Your task to perform on an android device: Search for "usb-a to usb-b" on target.com, select the first entry, add it to the cart, then select checkout. Image 0: 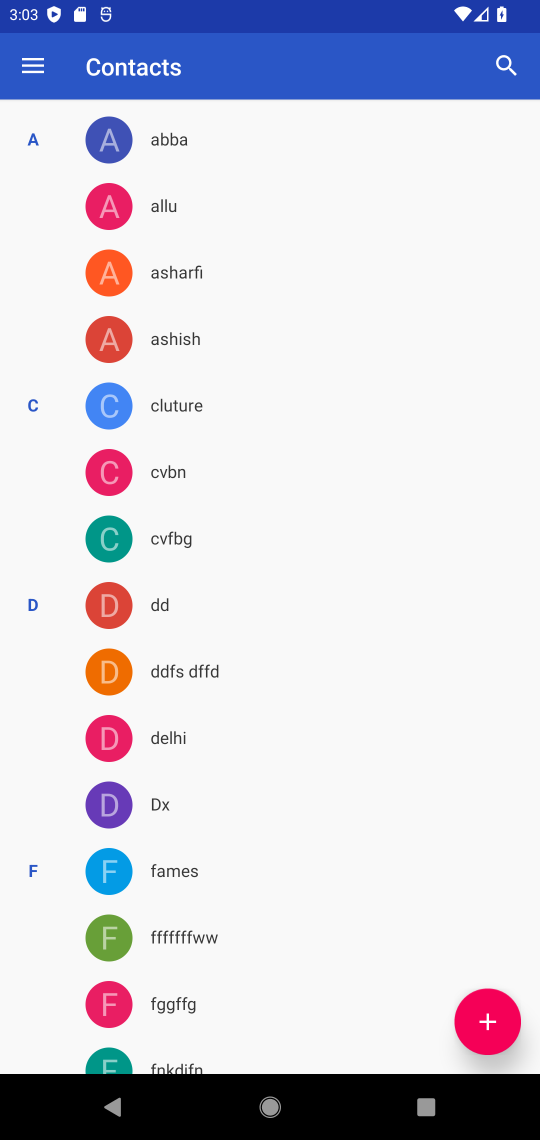
Step 0: press home button
Your task to perform on an android device: Search for "usb-a to usb-b" on target.com, select the first entry, add it to the cart, then select checkout. Image 1: 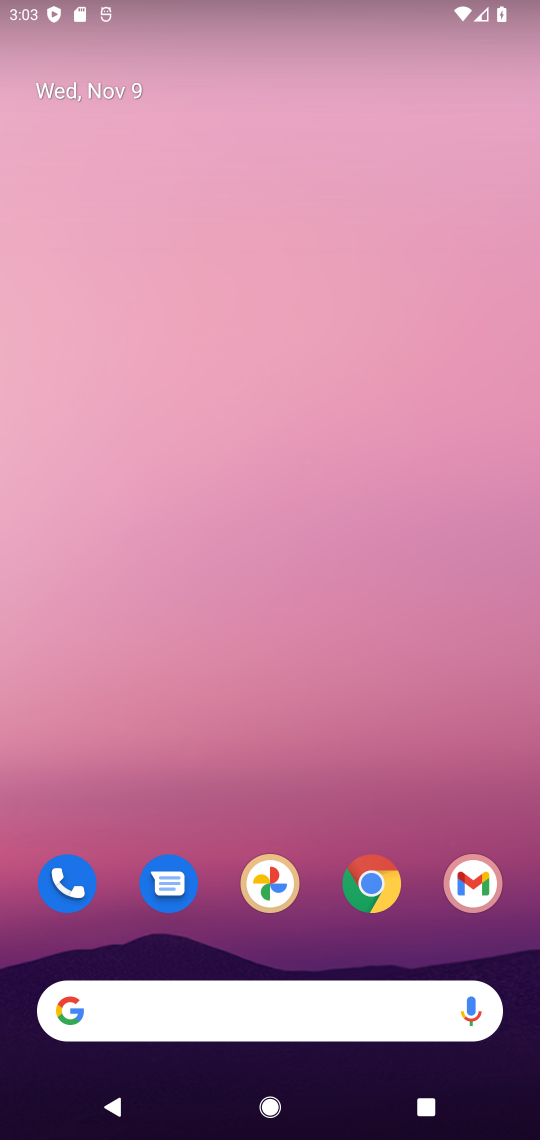
Step 1: click (366, 890)
Your task to perform on an android device: Search for "usb-a to usb-b" on target.com, select the first entry, add it to the cart, then select checkout. Image 2: 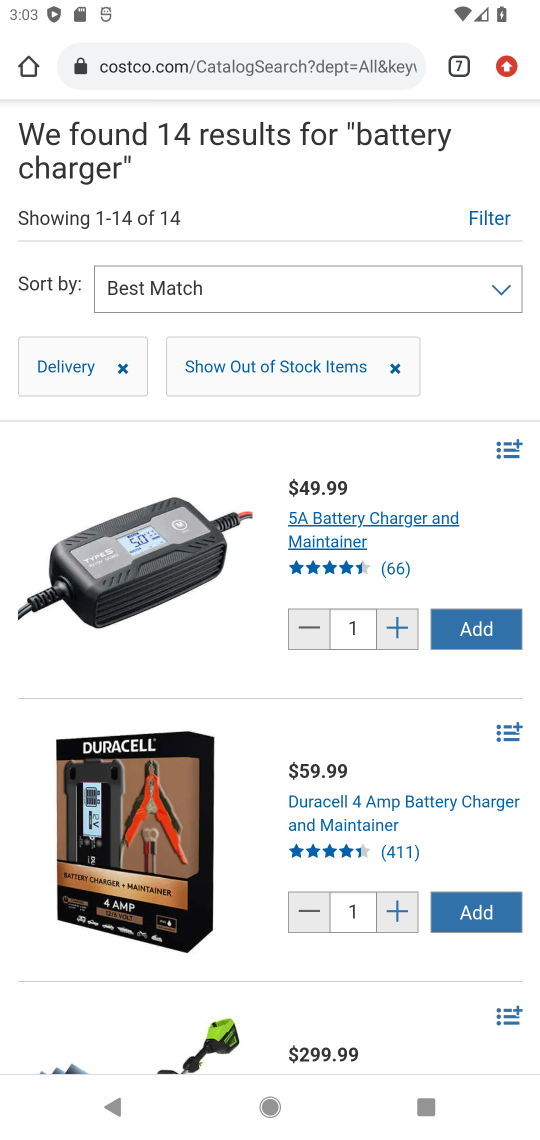
Step 2: click (456, 74)
Your task to perform on an android device: Search for "usb-a to usb-b" on target.com, select the first entry, add it to the cart, then select checkout. Image 3: 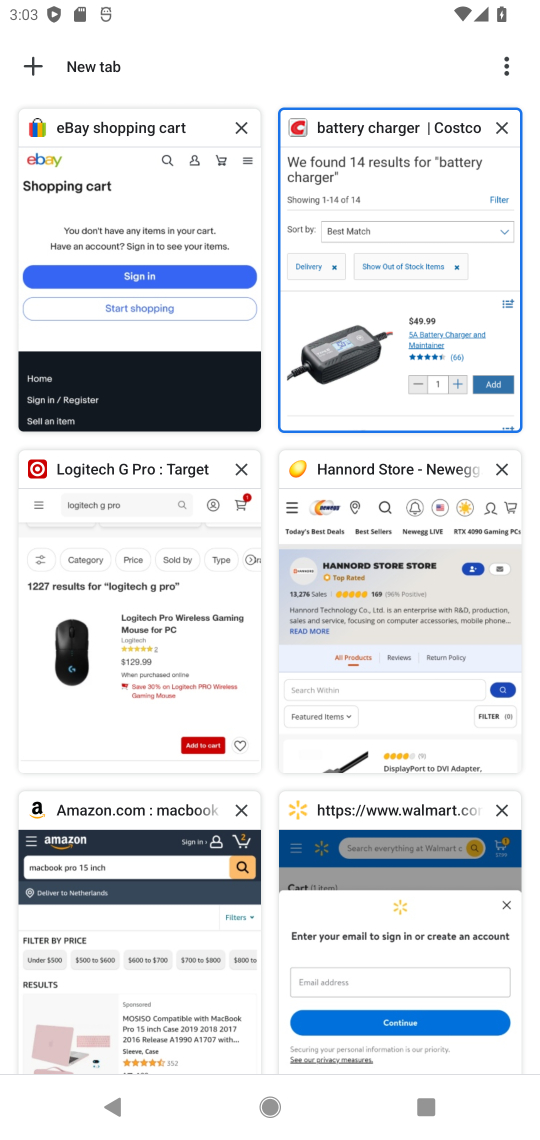
Step 3: click (107, 572)
Your task to perform on an android device: Search for "usb-a to usb-b" on target.com, select the first entry, add it to the cart, then select checkout. Image 4: 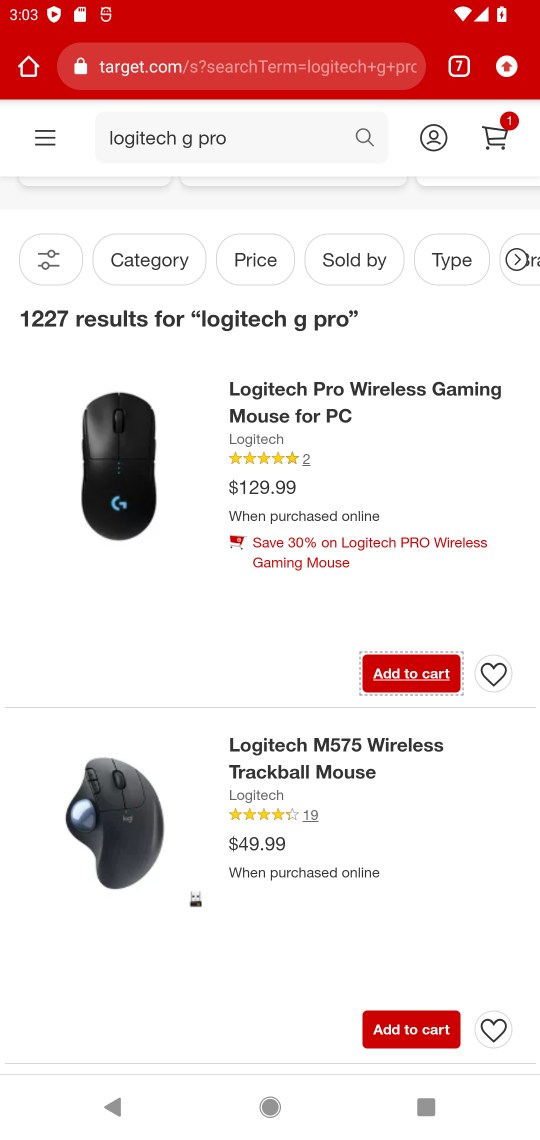
Step 4: click (298, 138)
Your task to perform on an android device: Search for "usb-a to usb-b" on target.com, select the first entry, add it to the cart, then select checkout. Image 5: 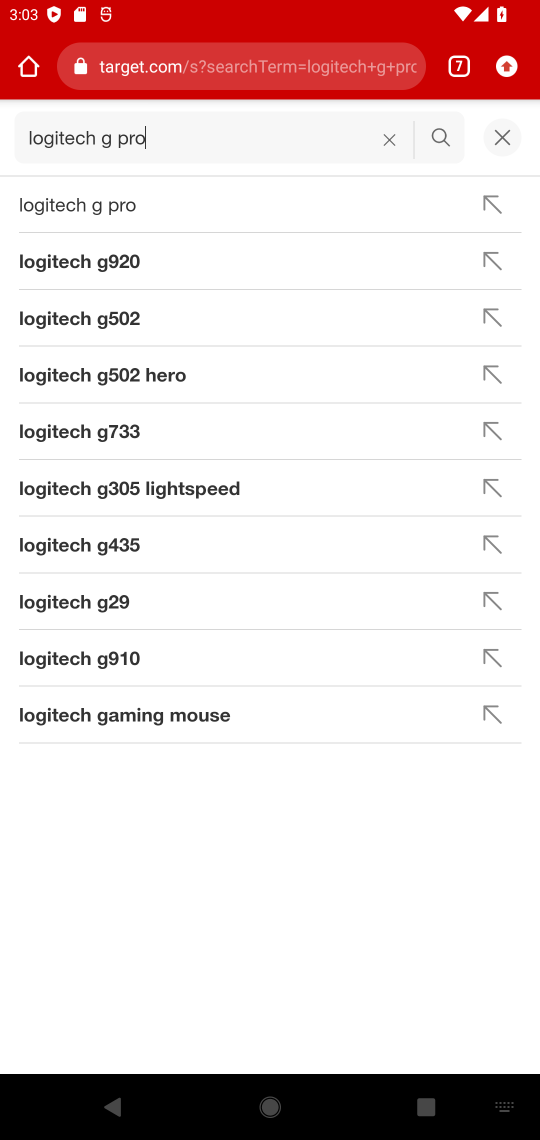
Step 5: click (388, 137)
Your task to perform on an android device: Search for "usb-a to usb-b" on target.com, select the first entry, add it to the cart, then select checkout. Image 6: 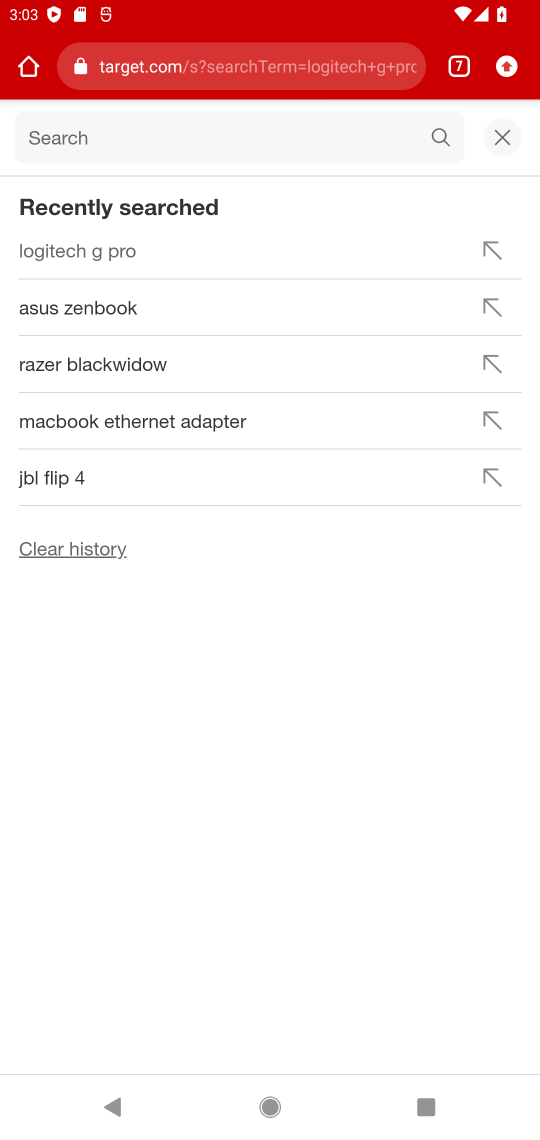
Step 6: click (158, 141)
Your task to perform on an android device: Search for "usb-a to usb-b" on target.com, select the first entry, add it to the cart, then select checkout. Image 7: 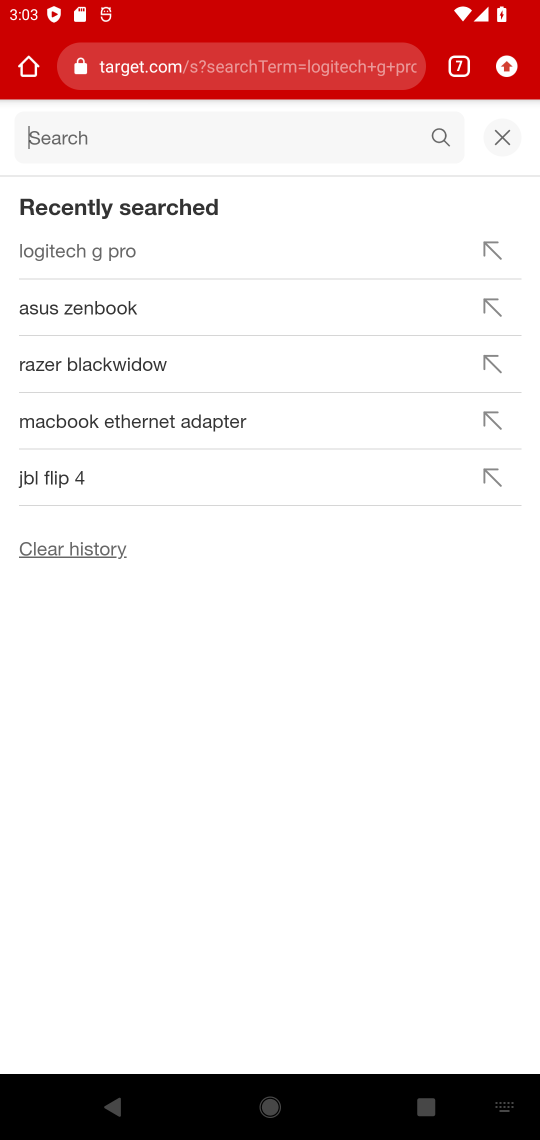
Step 7: type "usb-a to usb-b"
Your task to perform on an android device: Search for "usb-a to usb-b" on target.com, select the first entry, add it to the cart, then select checkout. Image 8: 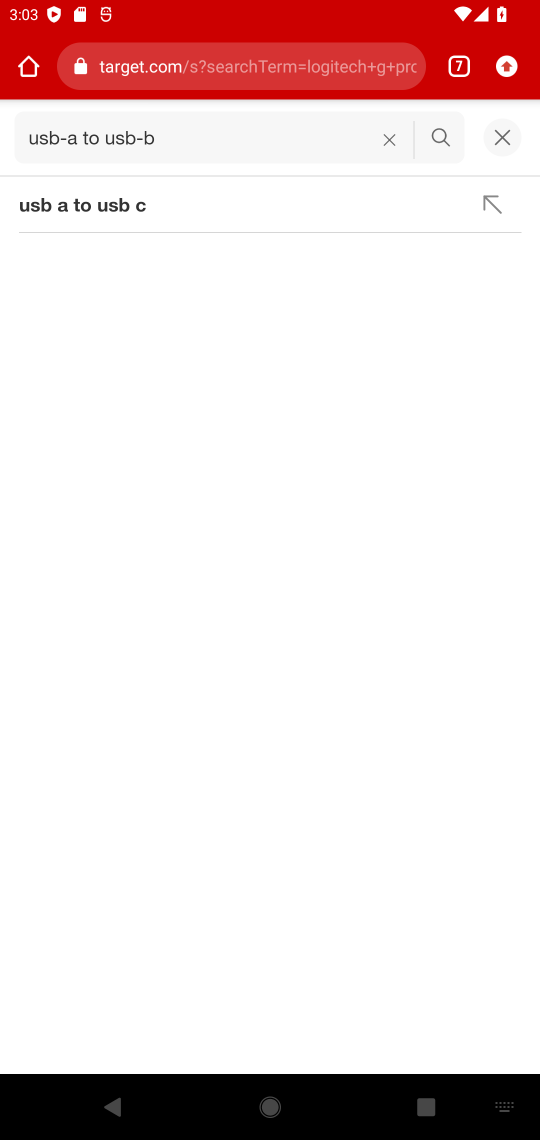
Step 8: click (443, 136)
Your task to perform on an android device: Search for "usb-a to usb-b" on target.com, select the first entry, add it to the cart, then select checkout. Image 9: 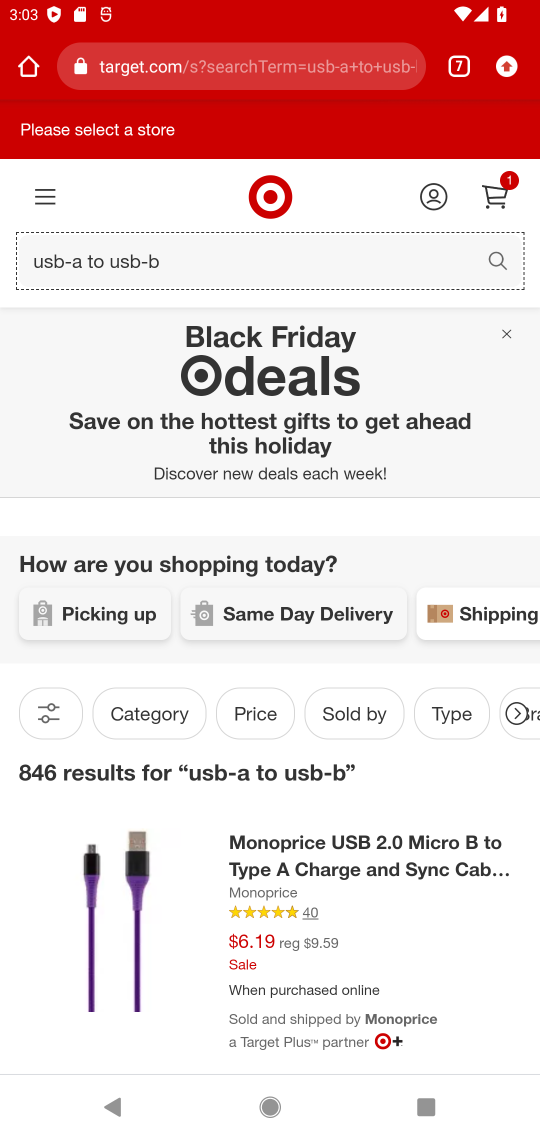
Step 9: drag from (379, 1007) to (431, 392)
Your task to perform on an android device: Search for "usb-a to usb-b" on target.com, select the first entry, add it to the cart, then select checkout. Image 10: 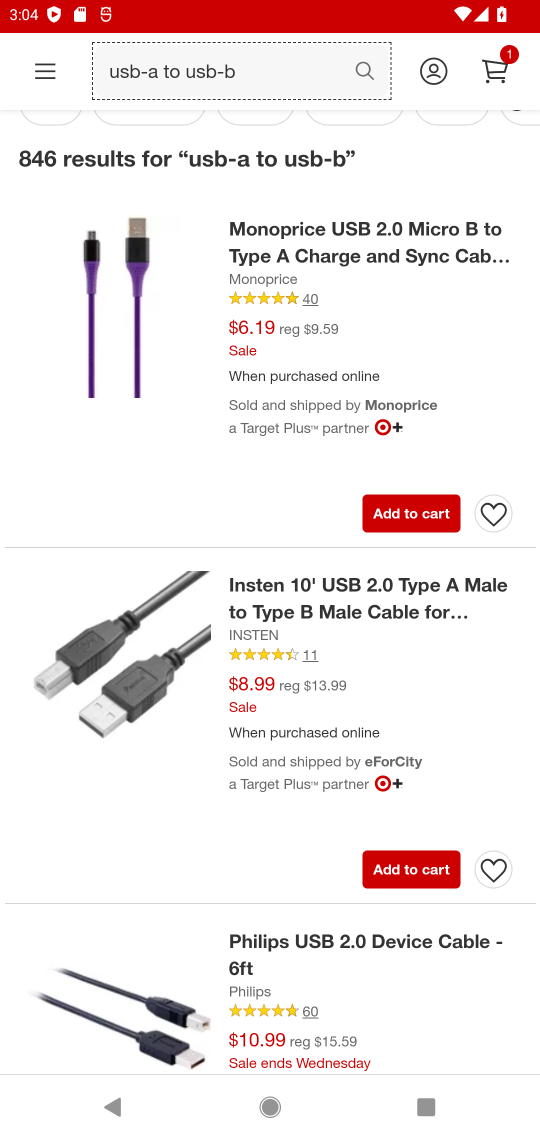
Step 10: click (357, 615)
Your task to perform on an android device: Search for "usb-a to usb-b" on target.com, select the first entry, add it to the cart, then select checkout. Image 11: 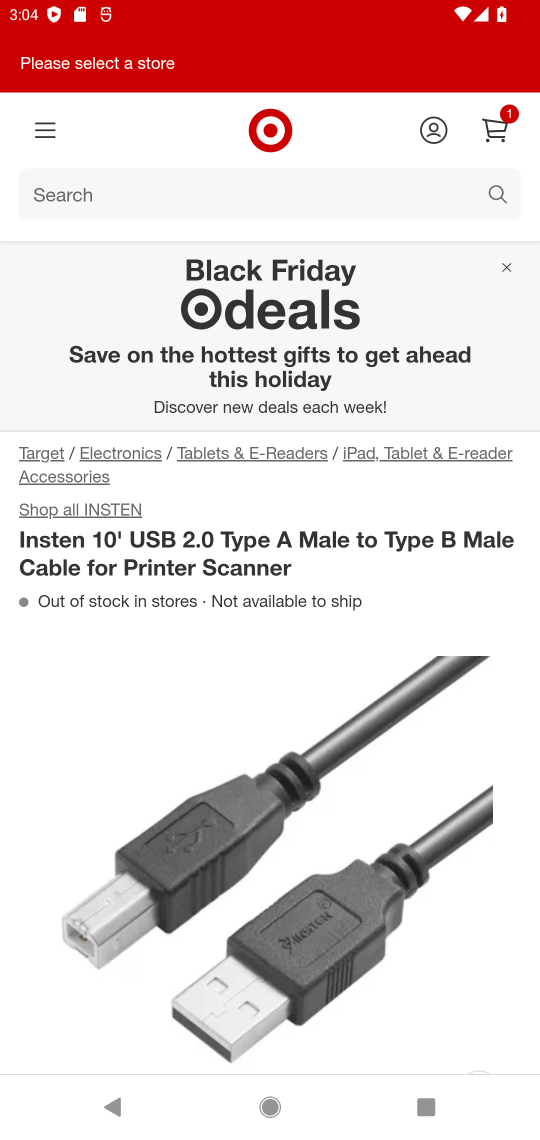
Step 11: drag from (363, 946) to (407, 449)
Your task to perform on an android device: Search for "usb-a to usb-b" on target.com, select the first entry, add it to the cart, then select checkout. Image 12: 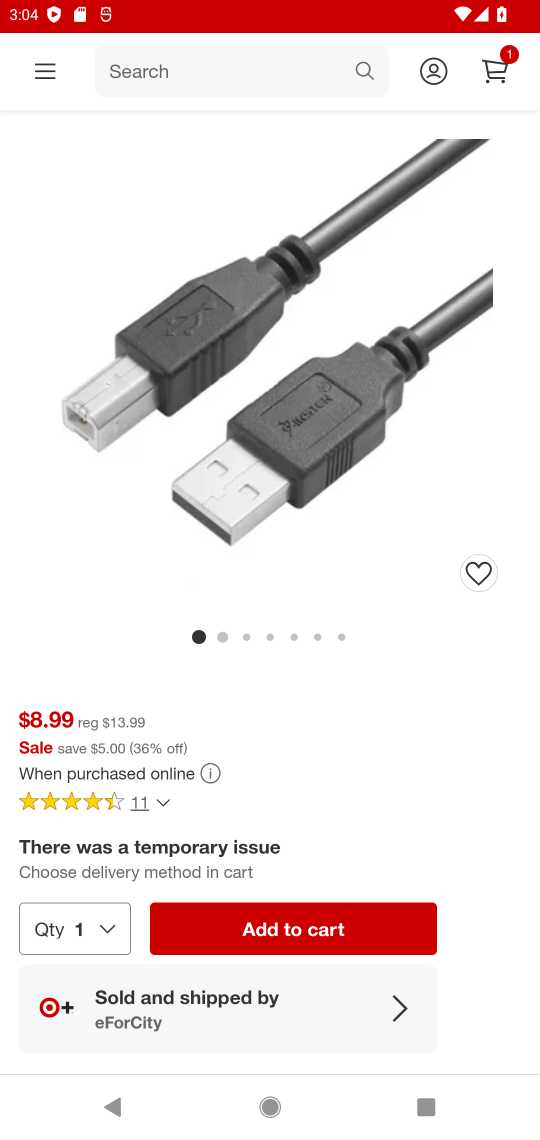
Step 12: click (283, 922)
Your task to perform on an android device: Search for "usb-a to usb-b" on target.com, select the first entry, add it to the cart, then select checkout. Image 13: 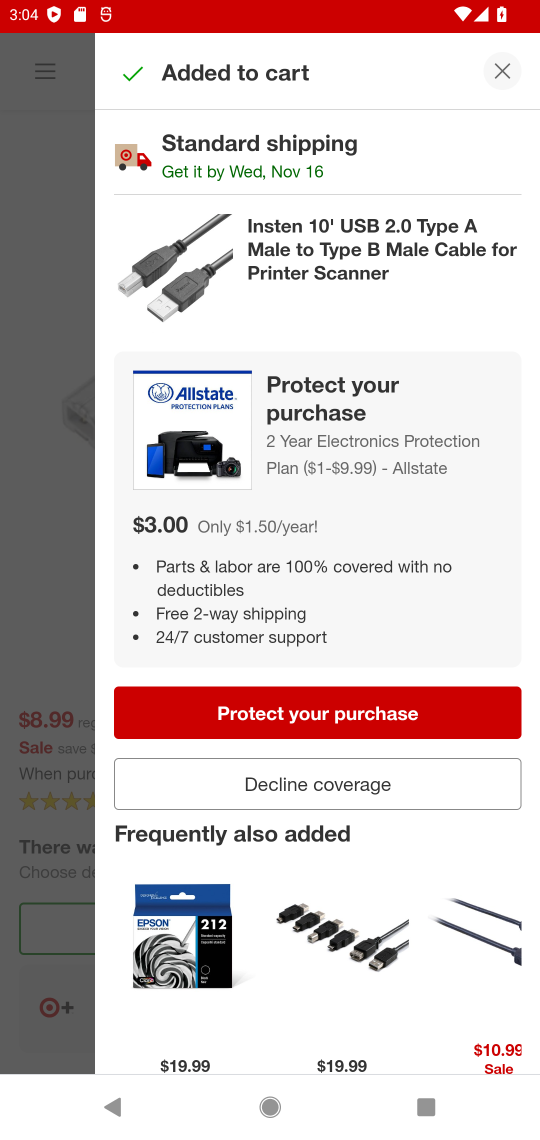
Step 13: click (248, 805)
Your task to perform on an android device: Search for "usb-a to usb-b" on target.com, select the first entry, add it to the cart, then select checkout. Image 14: 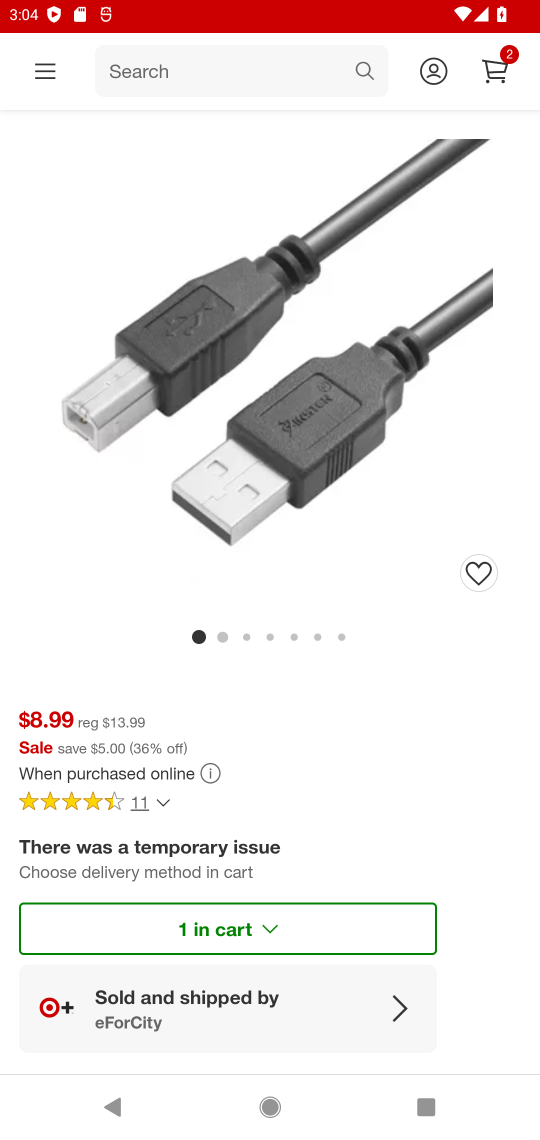
Step 14: click (500, 73)
Your task to perform on an android device: Search for "usb-a to usb-b" on target.com, select the first entry, add it to the cart, then select checkout. Image 15: 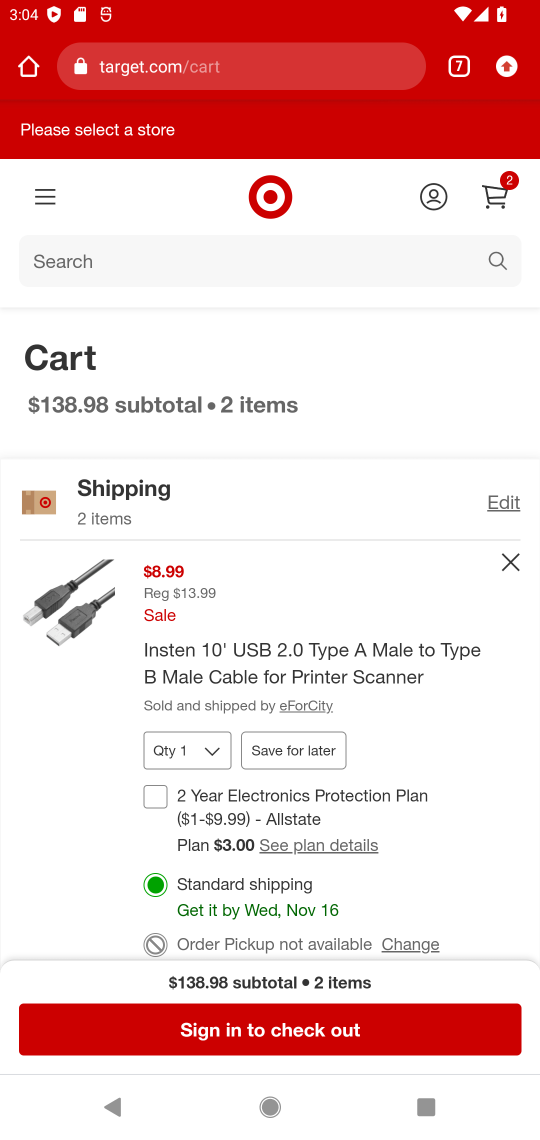
Step 15: click (309, 1036)
Your task to perform on an android device: Search for "usb-a to usb-b" on target.com, select the first entry, add it to the cart, then select checkout. Image 16: 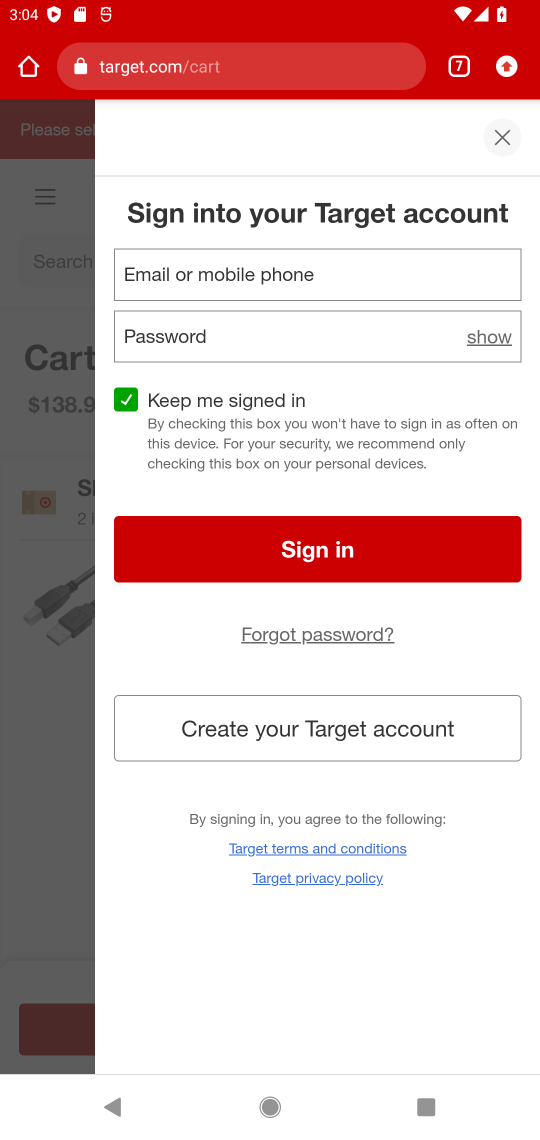
Step 16: task complete